Your task to perform on an android device: turn on sleep mode Image 0: 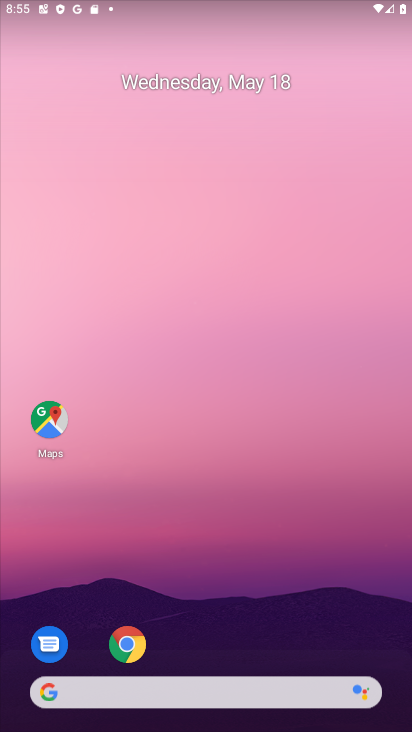
Step 0: drag from (223, 589) to (192, 191)
Your task to perform on an android device: turn on sleep mode Image 1: 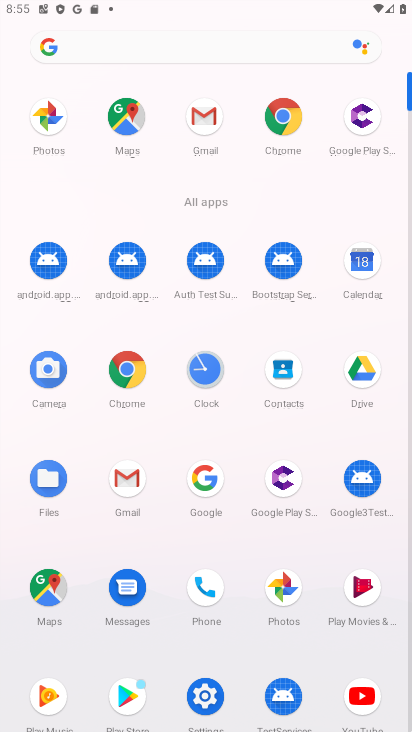
Step 1: click (206, 696)
Your task to perform on an android device: turn on sleep mode Image 2: 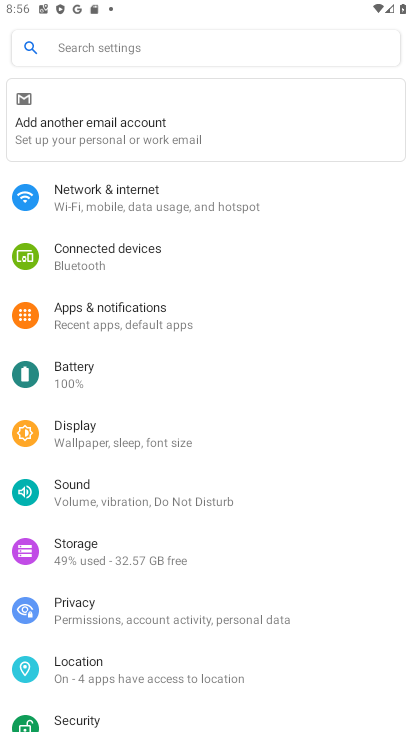
Step 2: click (141, 447)
Your task to perform on an android device: turn on sleep mode Image 3: 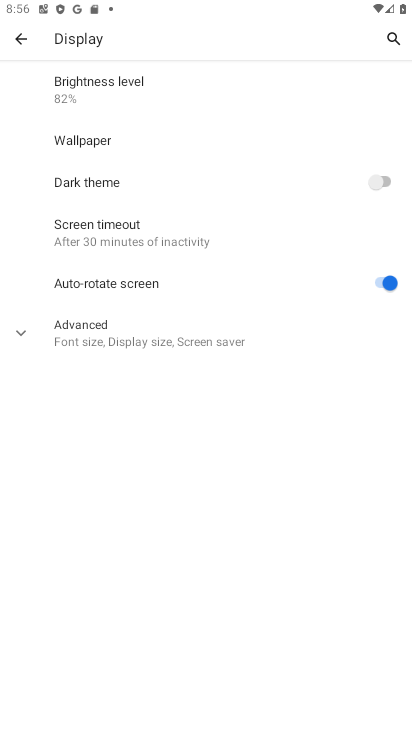
Step 3: click (114, 251)
Your task to perform on an android device: turn on sleep mode Image 4: 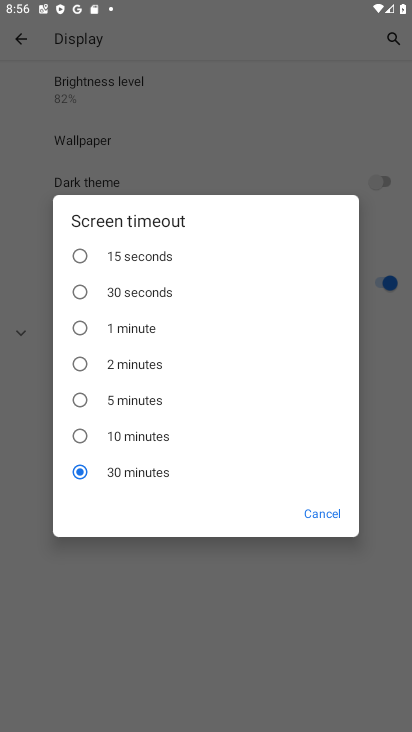
Step 4: drag from (114, 251) to (161, 333)
Your task to perform on an android device: turn on sleep mode Image 5: 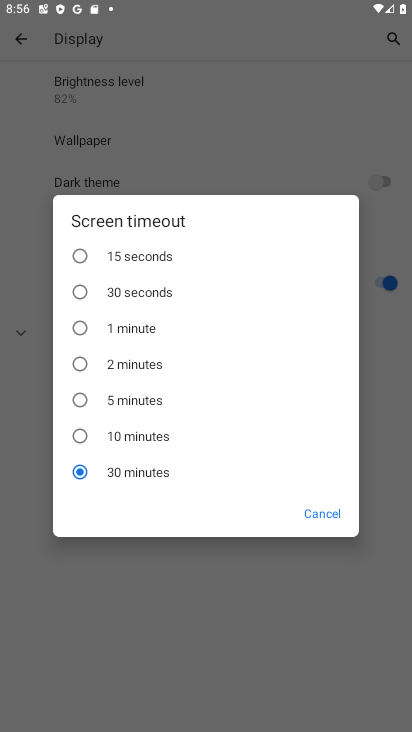
Step 5: drag from (147, 404) to (130, 312)
Your task to perform on an android device: turn on sleep mode Image 6: 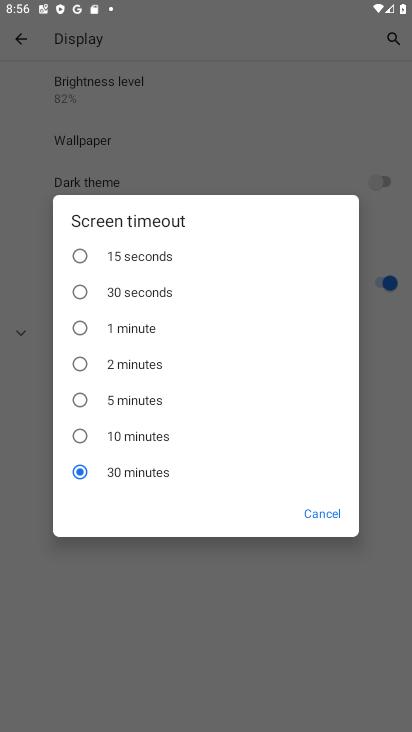
Step 6: click (313, 511)
Your task to perform on an android device: turn on sleep mode Image 7: 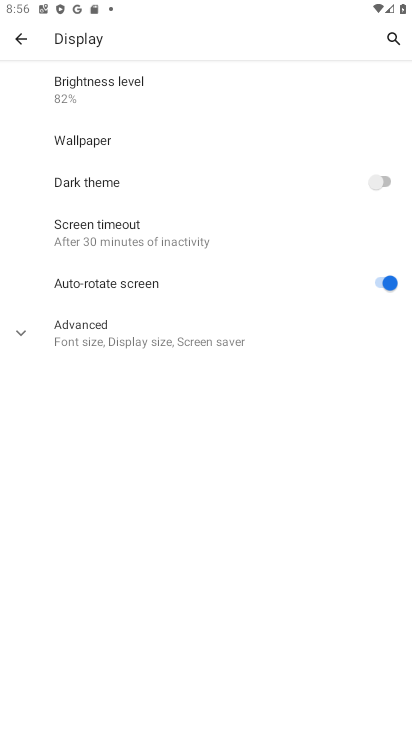
Step 7: click (207, 343)
Your task to perform on an android device: turn on sleep mode Image 8: 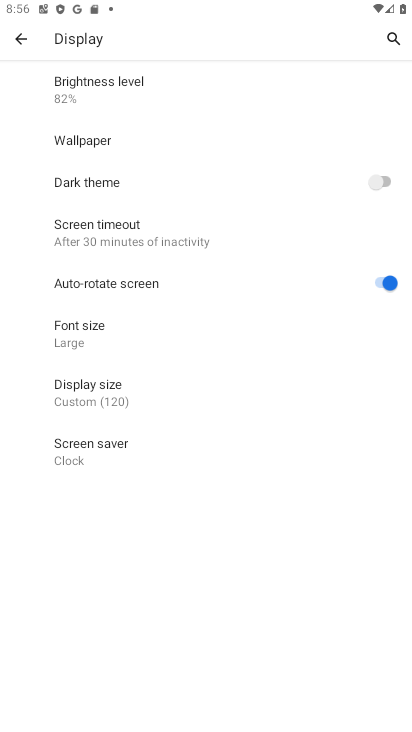
Step 8: task complete